Your task to perform on an android device: Search for the new ikea dresser Image 0: 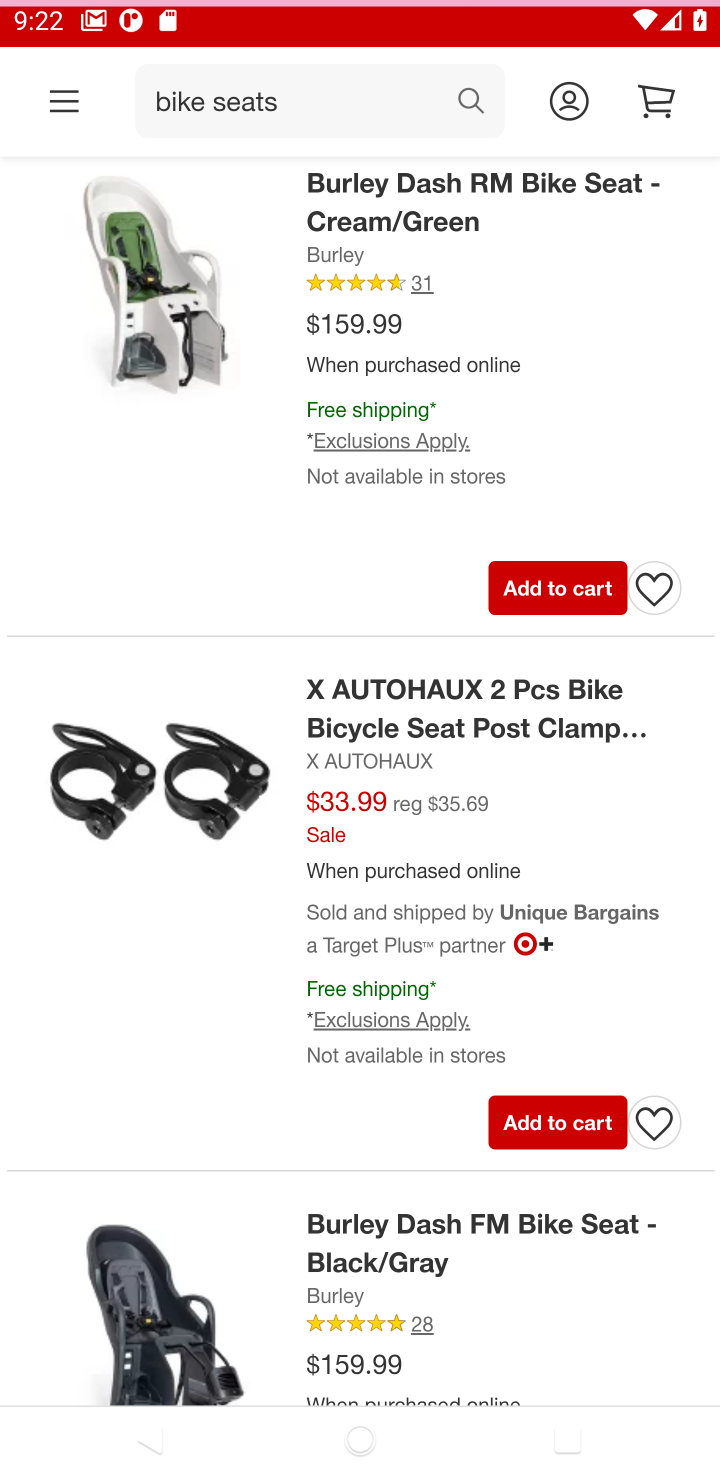
Step 0: press home button
Your task to perform on an android device: Search for the new ikea dresser Image 1: 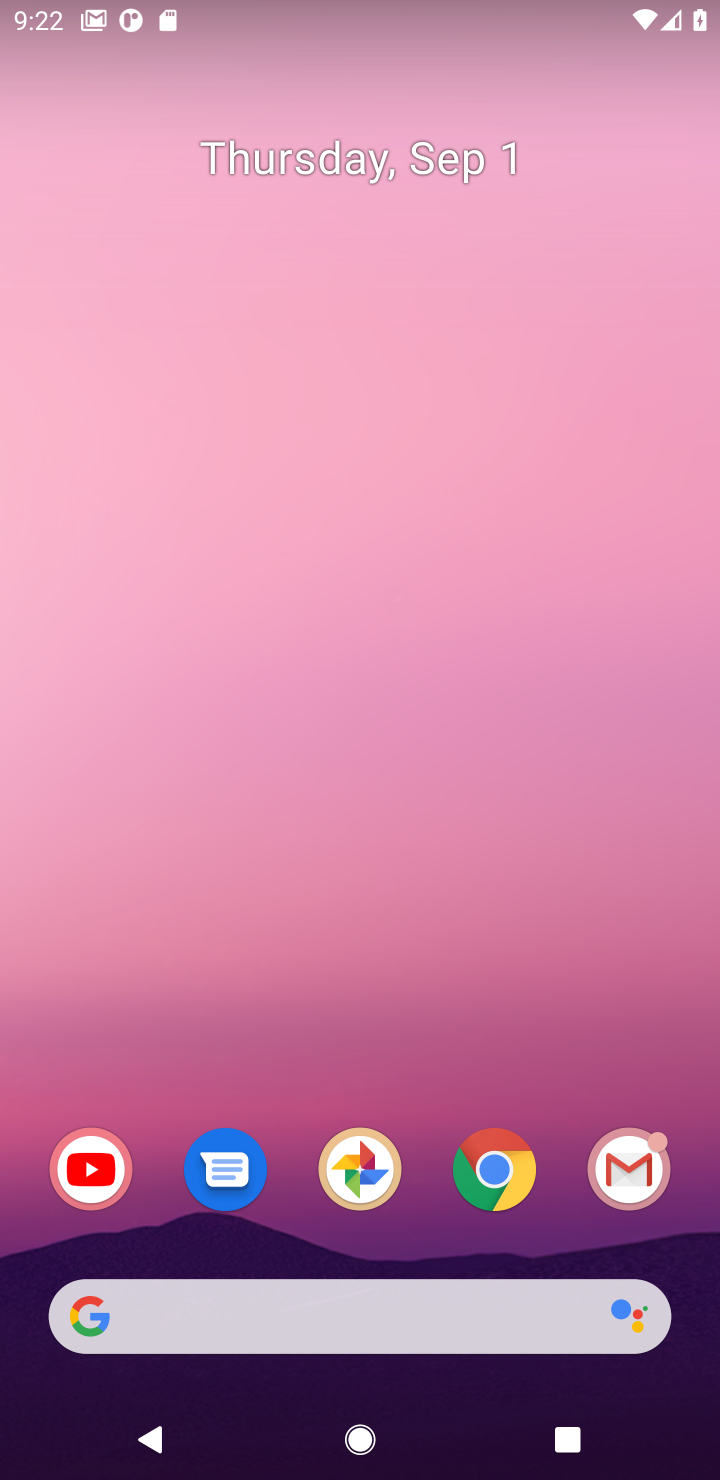
Step 1: drag from (418, 1119) to (396, 163)
Your task to perform on an android device: Search for the new ikea dresser Image 2: 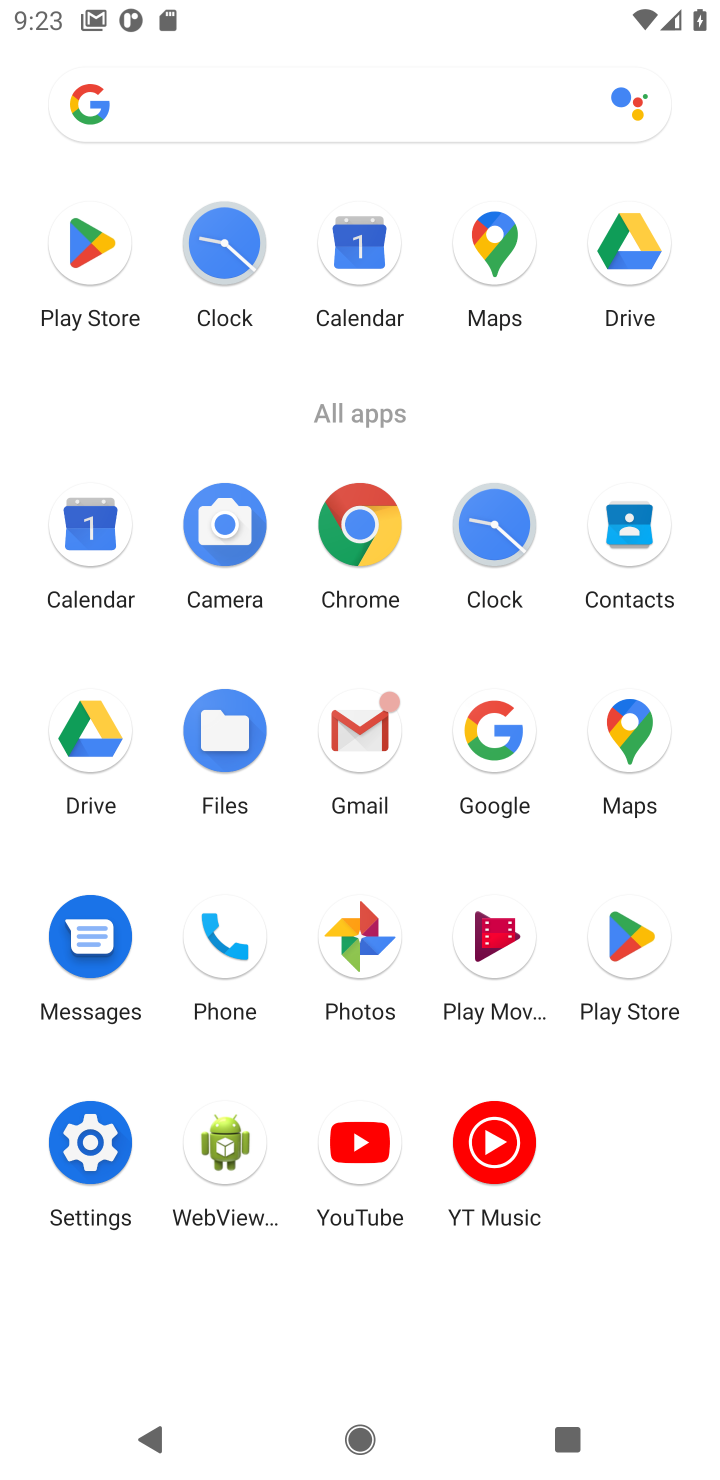
Step 2: click (343, 521)
Your task to perform on an android device: Search for the new ikea dresser Image 3: 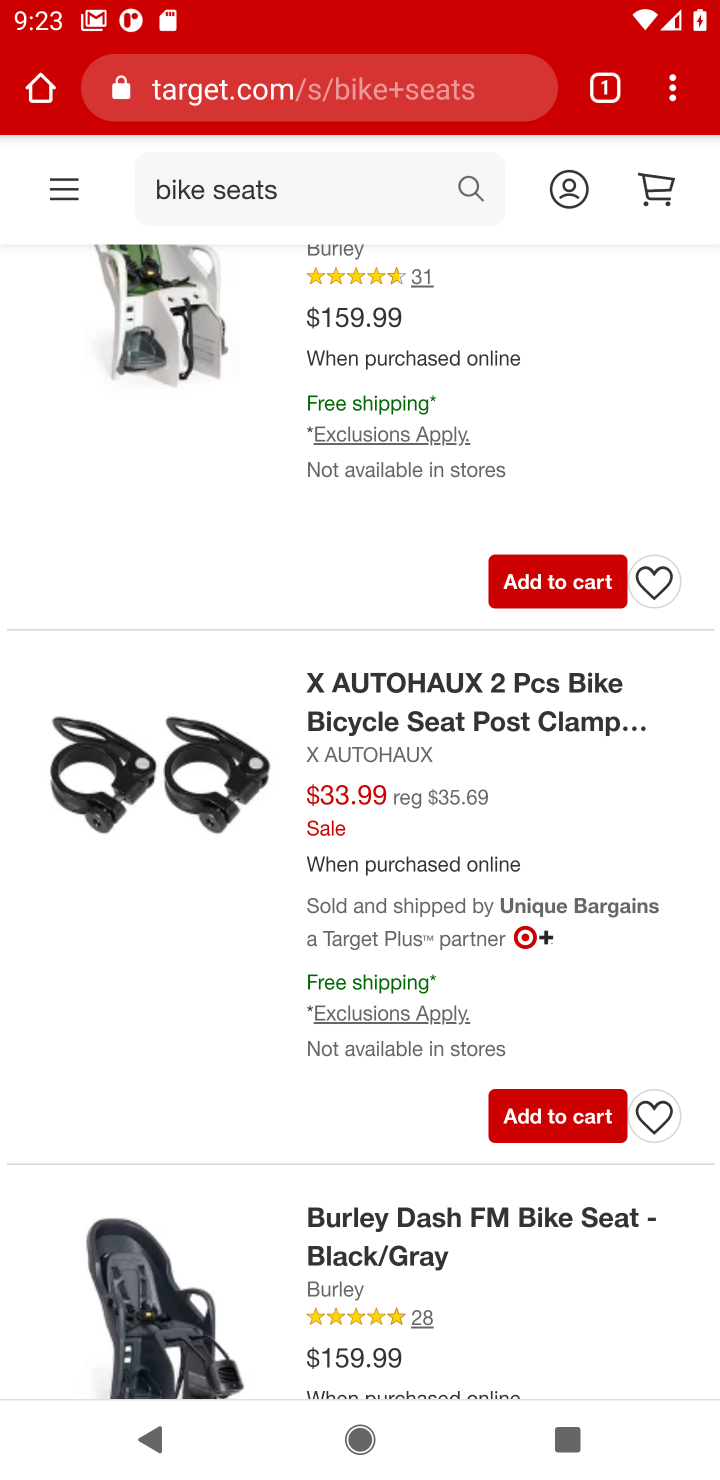
Step 3: click (600, 88)
Your task to perform on an android device: Search for the new ikea dresser Image 4: 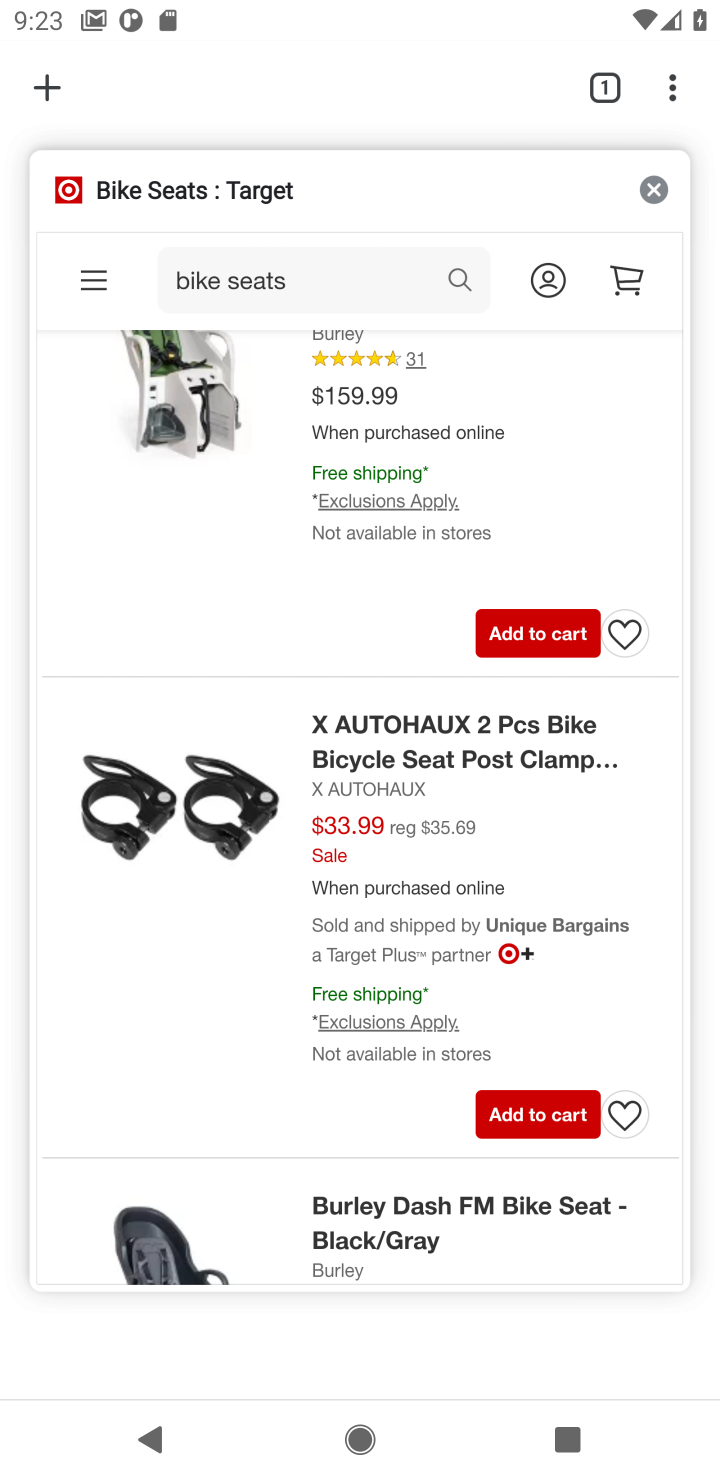
Step 4: click (41, 101)
Your task to perform on an android device: Search for the new ikea dresser Image 5: 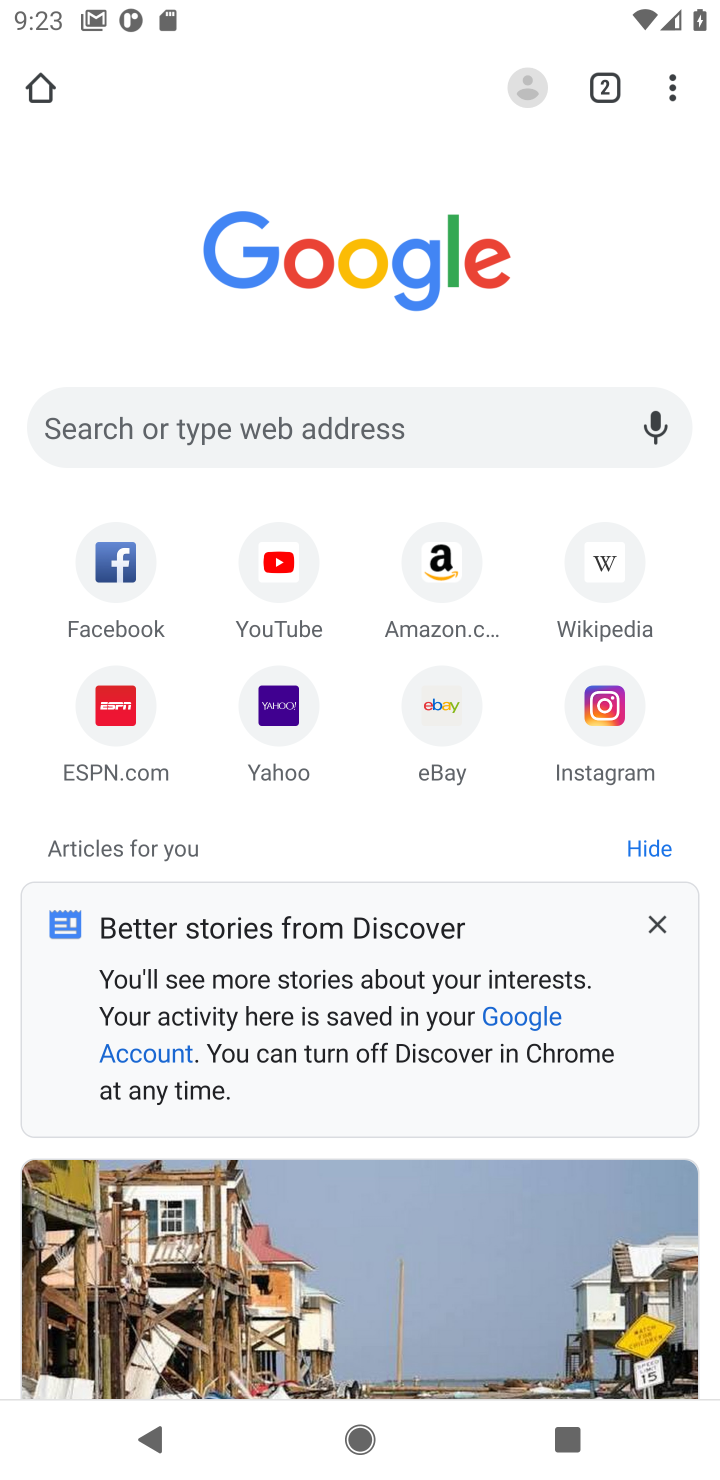
Step 5: click (249, 408)
Your task to perform on an android device: Search for the new ikea dresser Image 6: 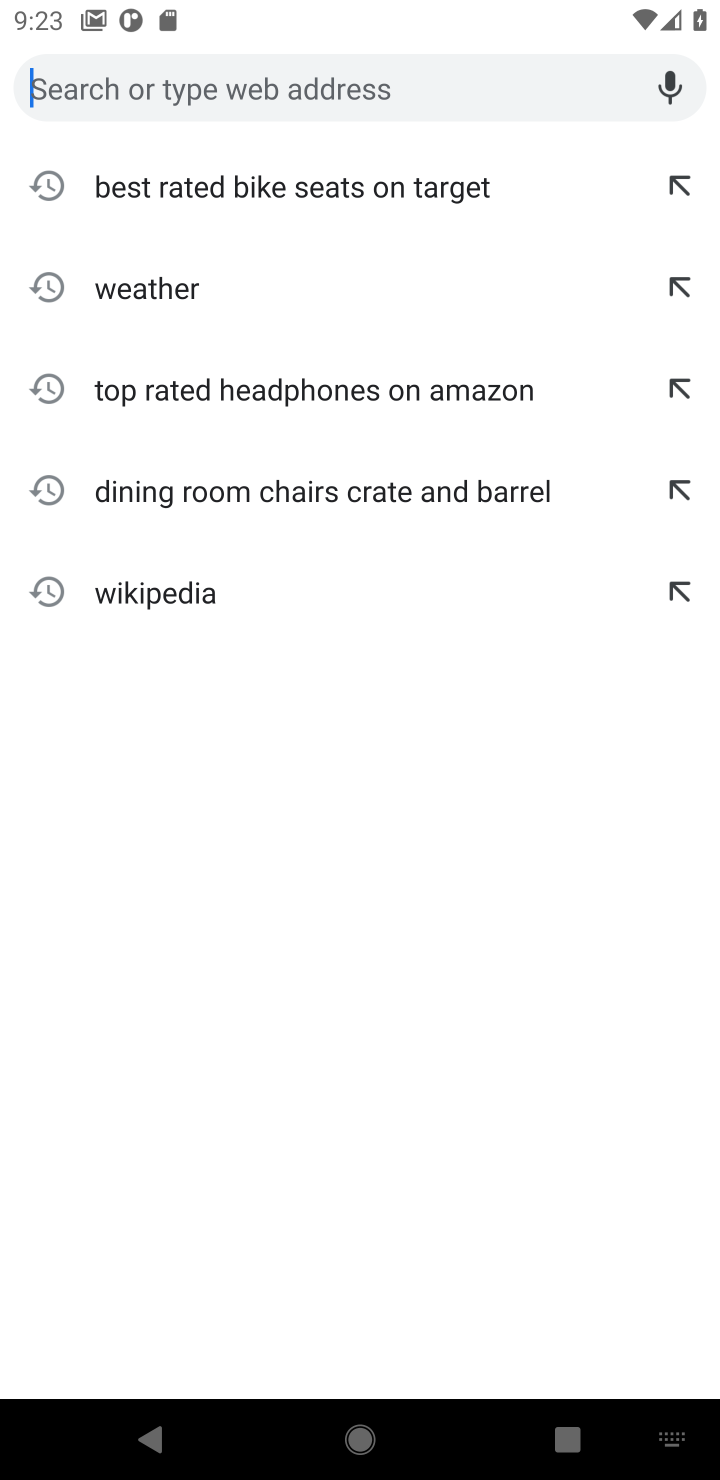
Step 6: type "the new ikea dresser"
Your task to perform on an android device: Search for the new ikea dresser Image 7: 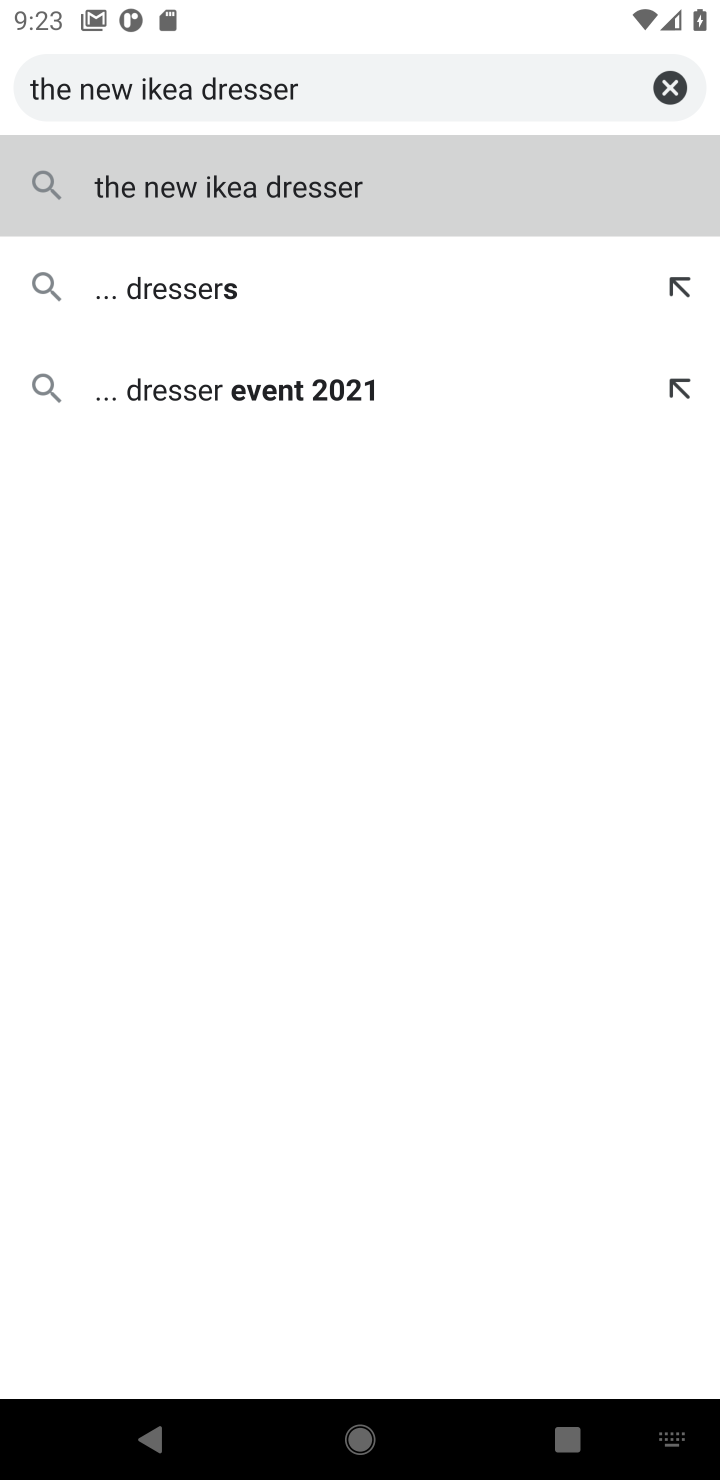
Step 7: click (360, 201)
Your task to perform on an android device: Search for the new ikea dresser Image 8: 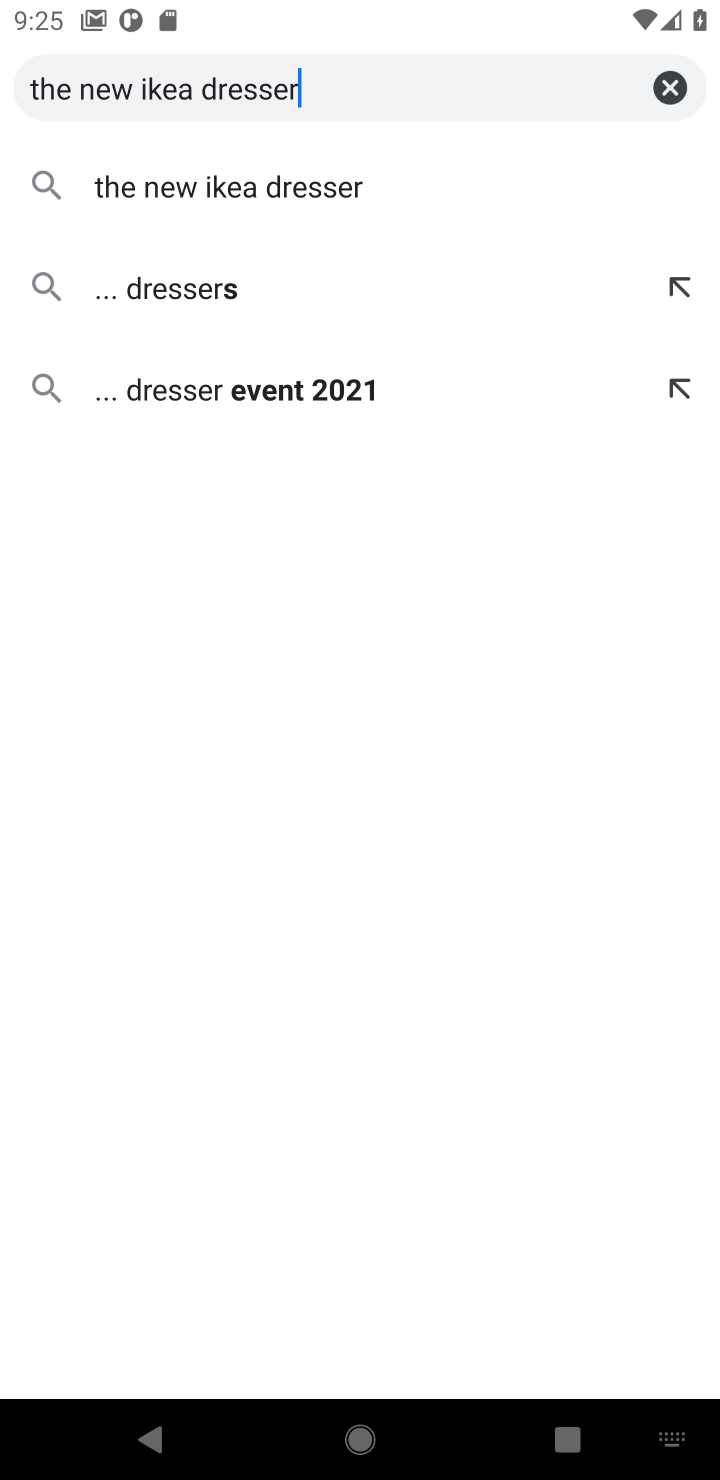
Step 8: click (305, 175)
Your task to perform on an android device: Search for the new ikea dresser Image 9: 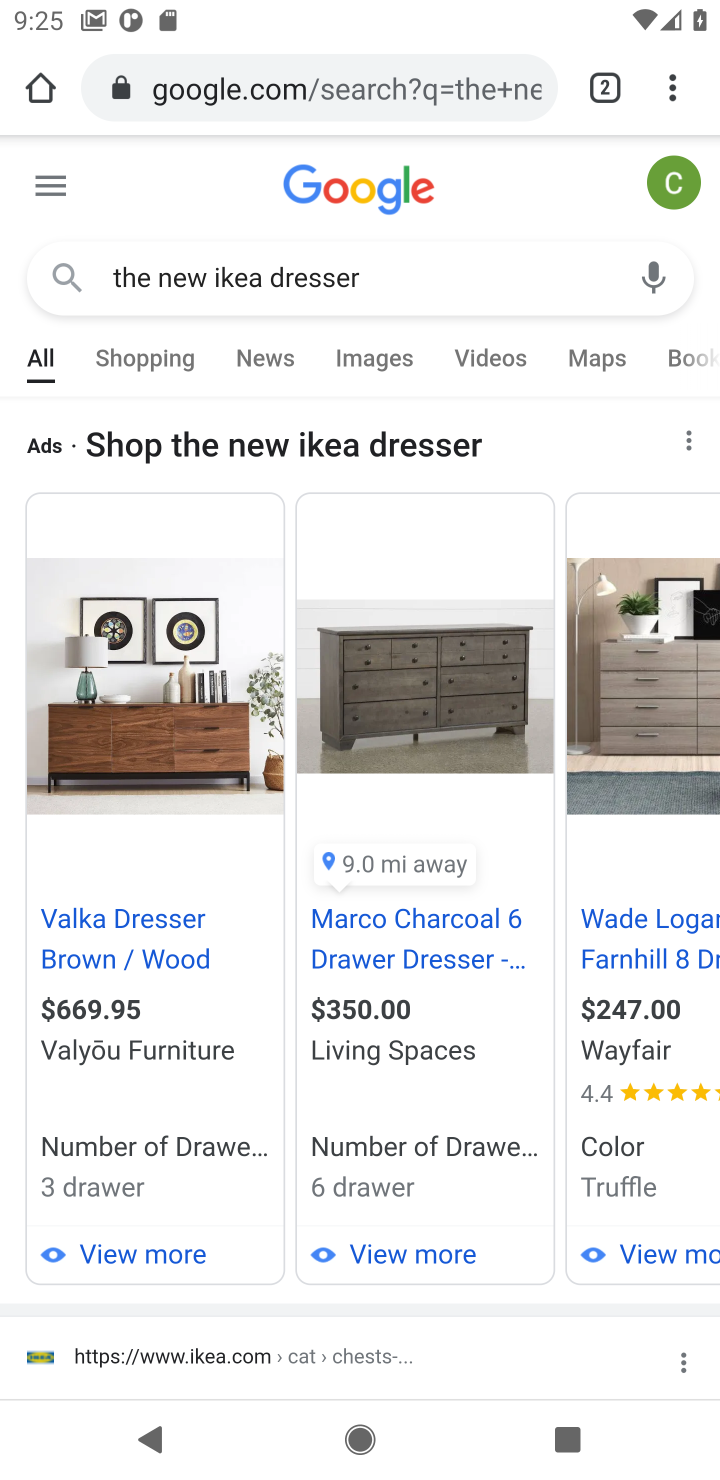
Step 9: drag from (289, 1299) to (311, 527)
Your task to perform on an android device: Search for the new ikea dresser Image 10: 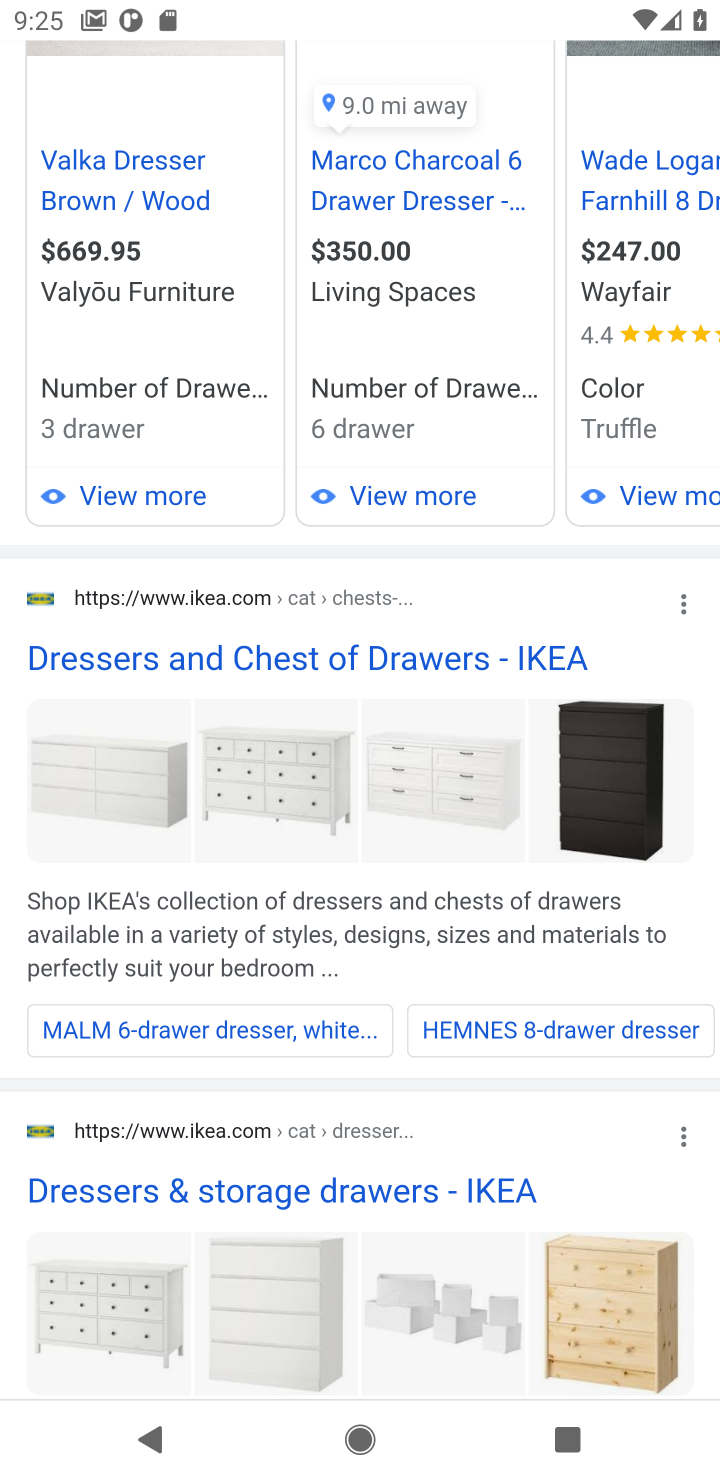
Step 10: click (321, 665)
Your task to perform on an android device: Search for the new ikea dresser Image 11: 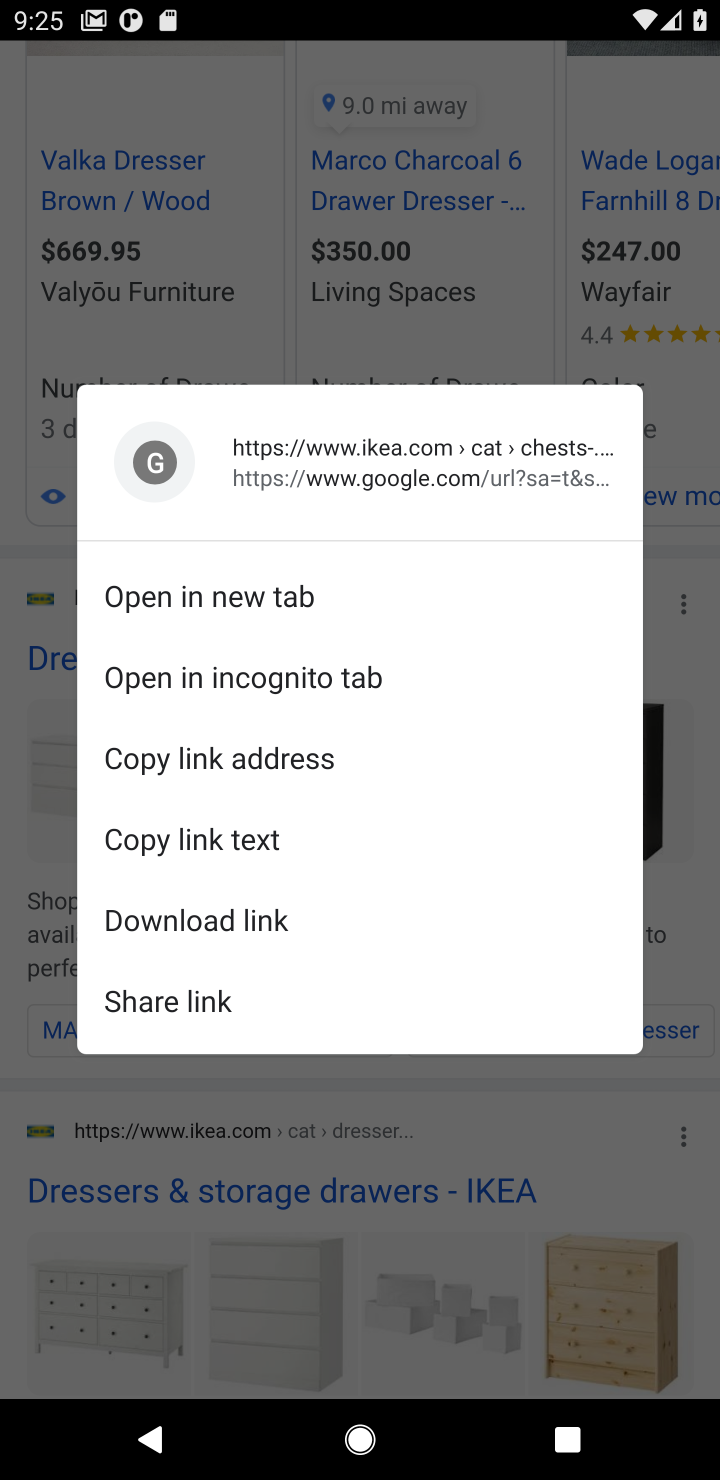
Step 11: click (16, 850)
Your task to perform on an android device: Search for the new ikea dresser Image 12: 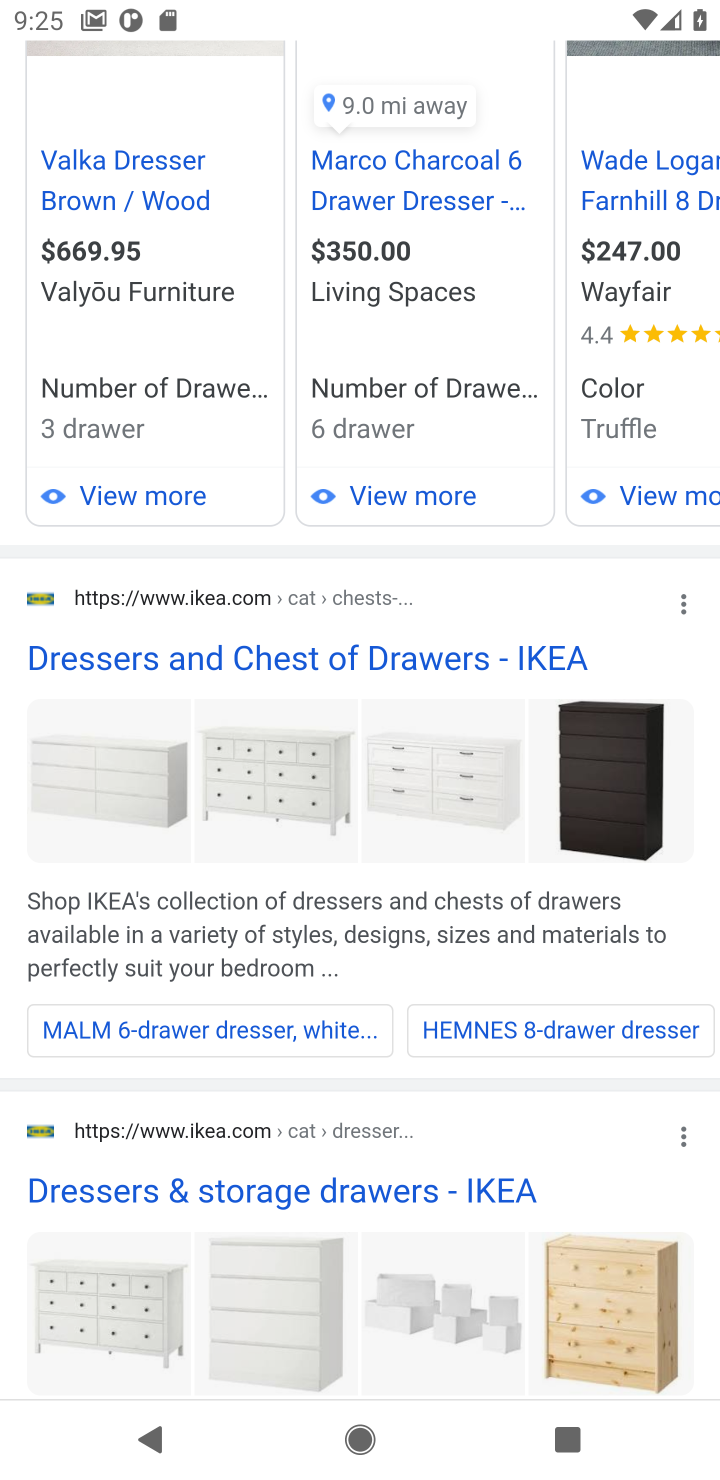
Step 12: click (118, 661)
Your task to perform on an android device: Search for the new ikea dresser Image 13: 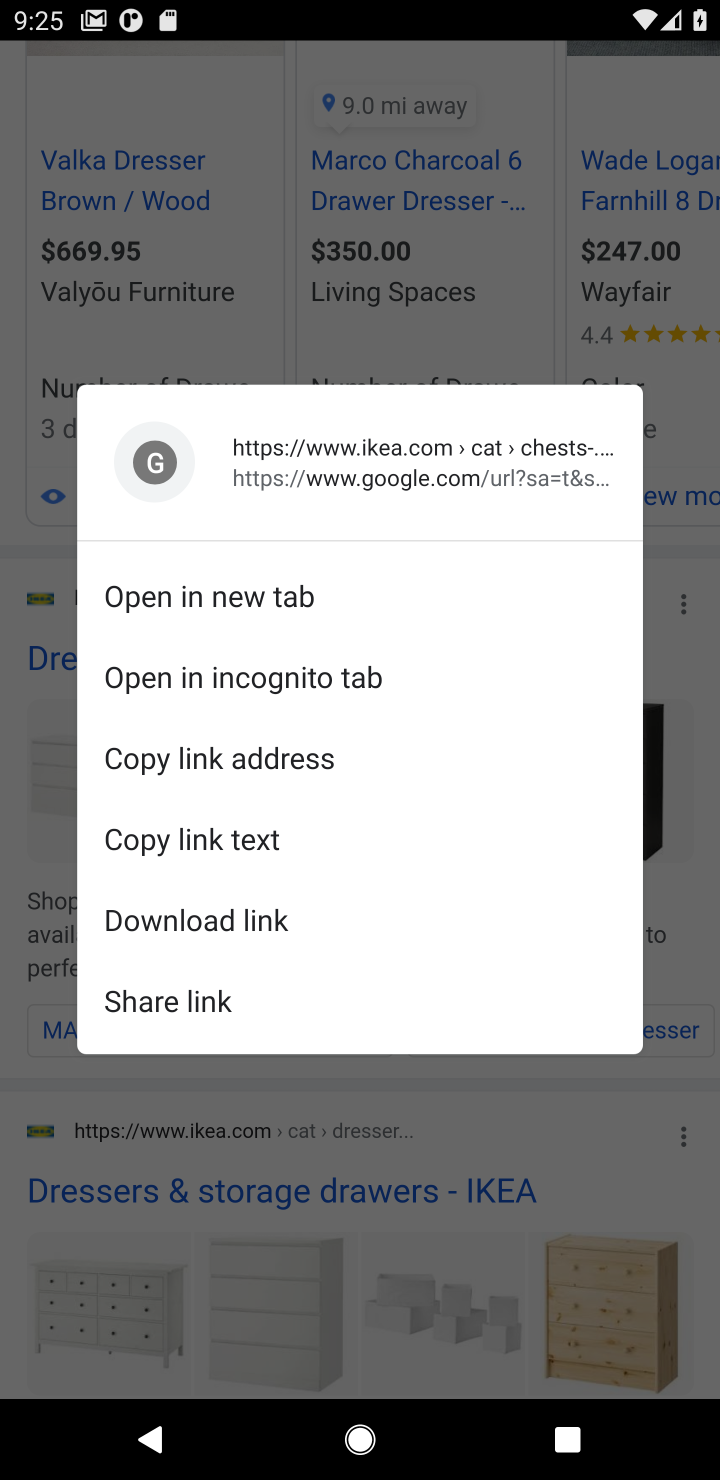
Step 13: click (16, 694)
Your task to perform on an android device: Search for the new ikea dresser Image 14: 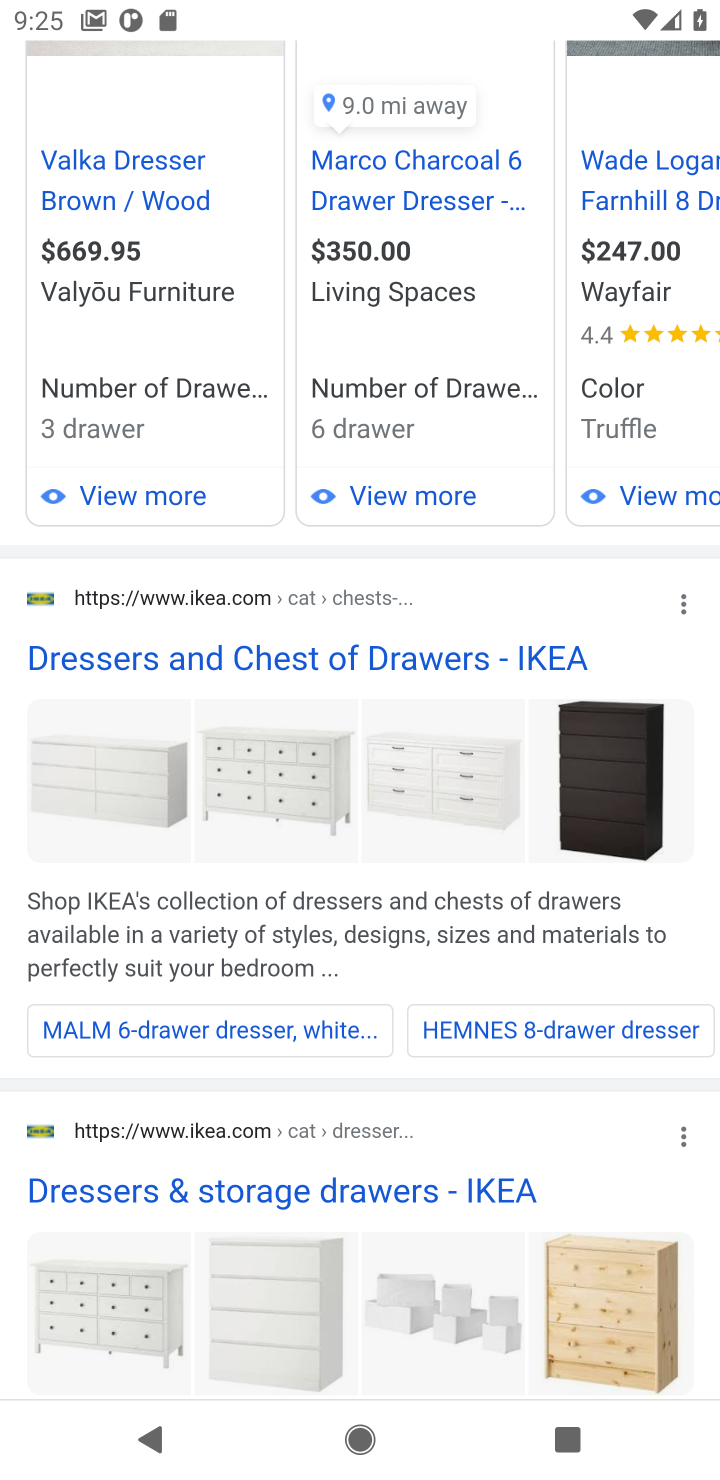
Step 14: drag from (12, 298) to (101, 1378)
Your task to perform on an android device: Search for the new ikea dresser Image 15: 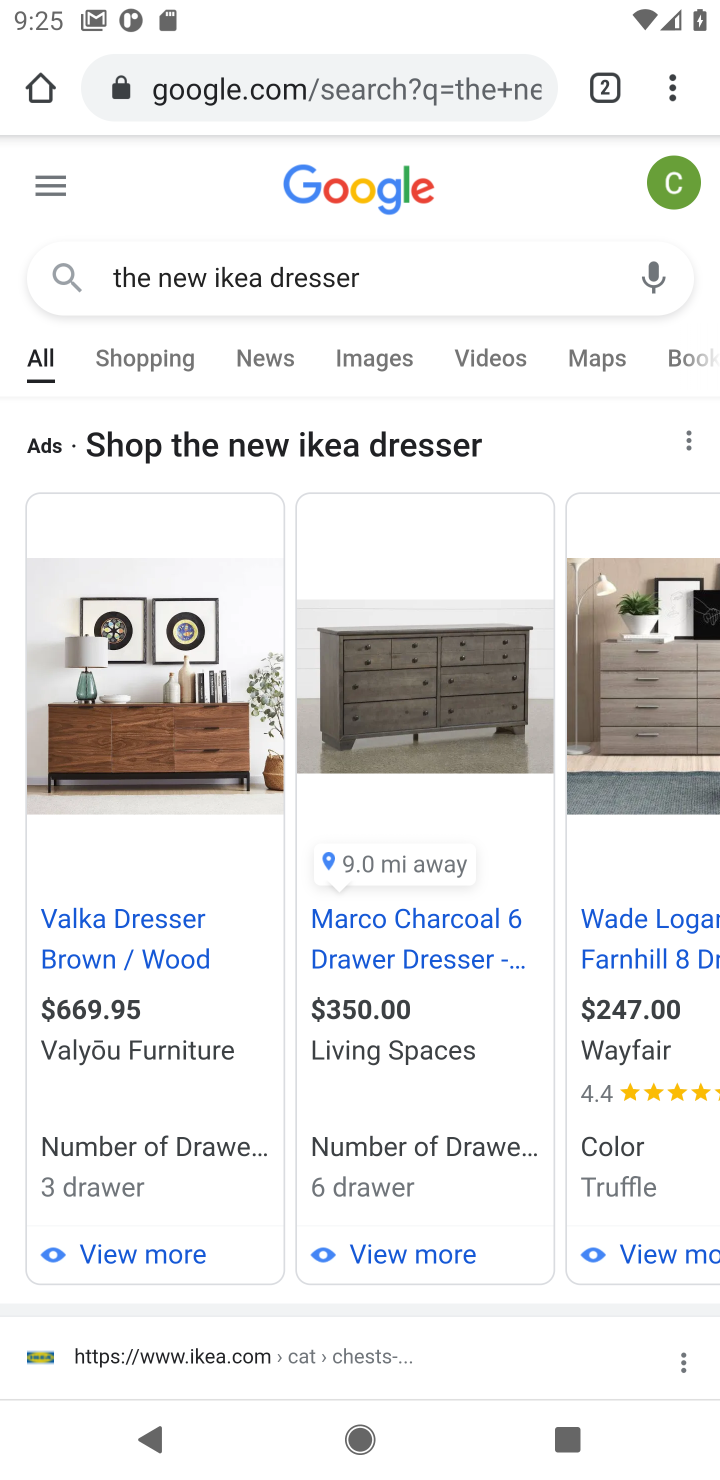
Step 15: drag from (13, 370) to (33, 909)
Your task to perform on an android device: Search for the new ikea dresser Image 16: 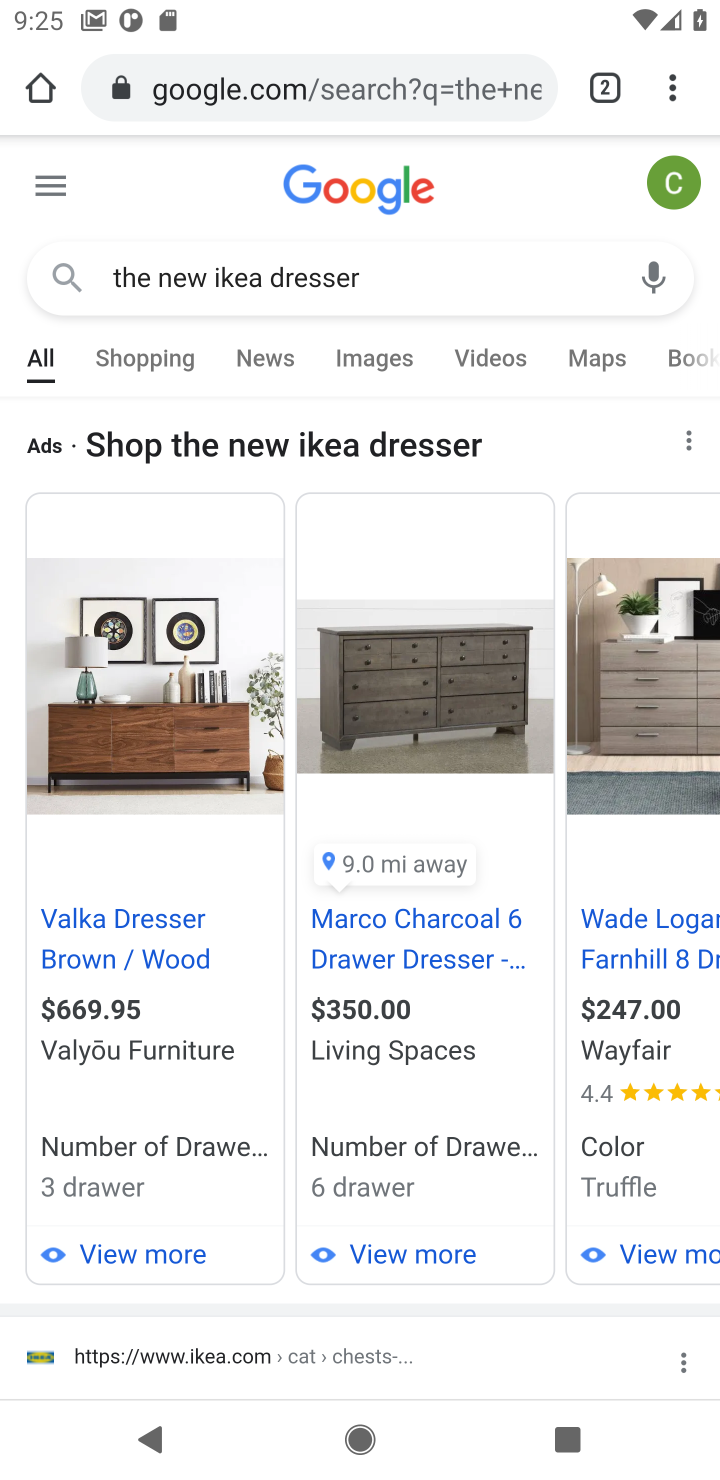
Step 16: drag from (296, 1300) to (287, 592)
Your task to perform on an android device: Search for the new ikea dresser Image 17: 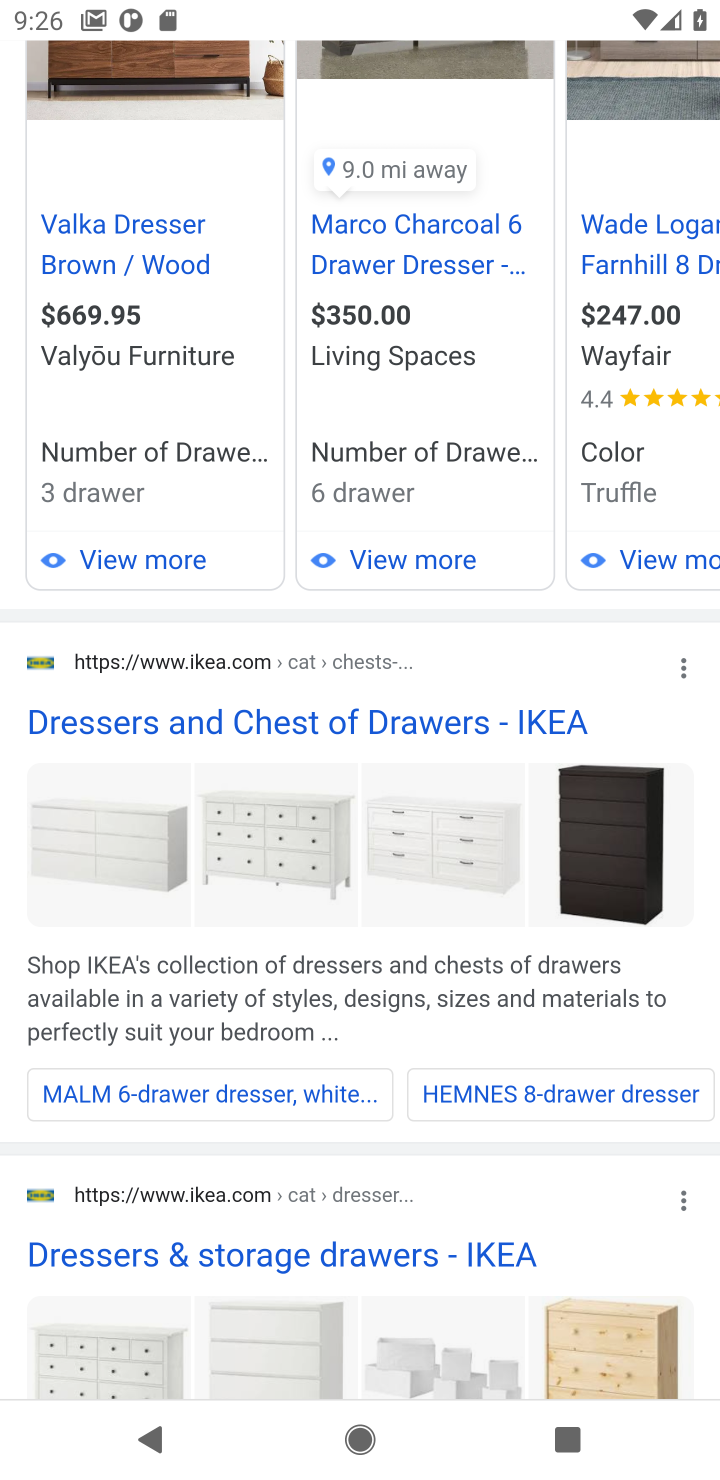
Step 17: click (308, 733)
Your task to perform on an android device: Search for the new ikea dresser Image 18: 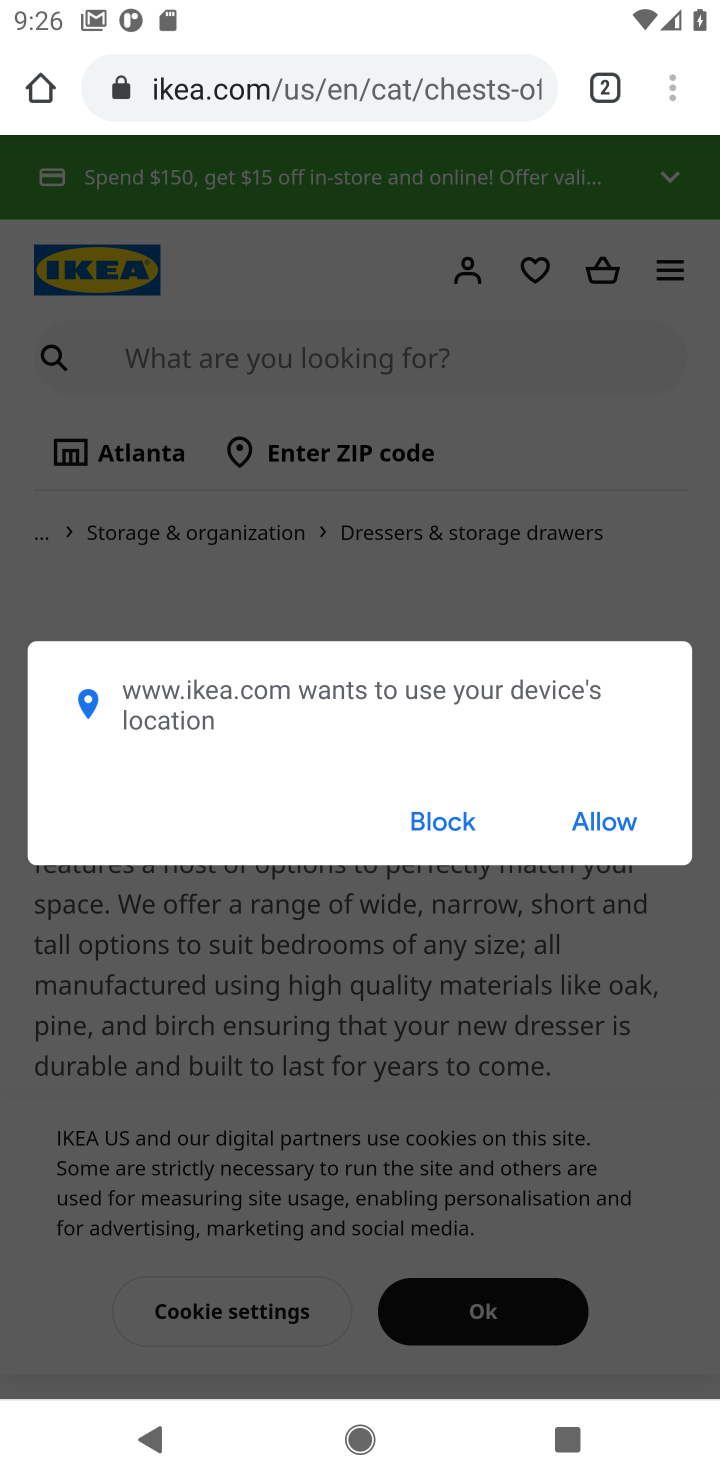
Step 18: click (461, 831)
Your task to perform on an android device: Search for the new ikea dresser Image 19: 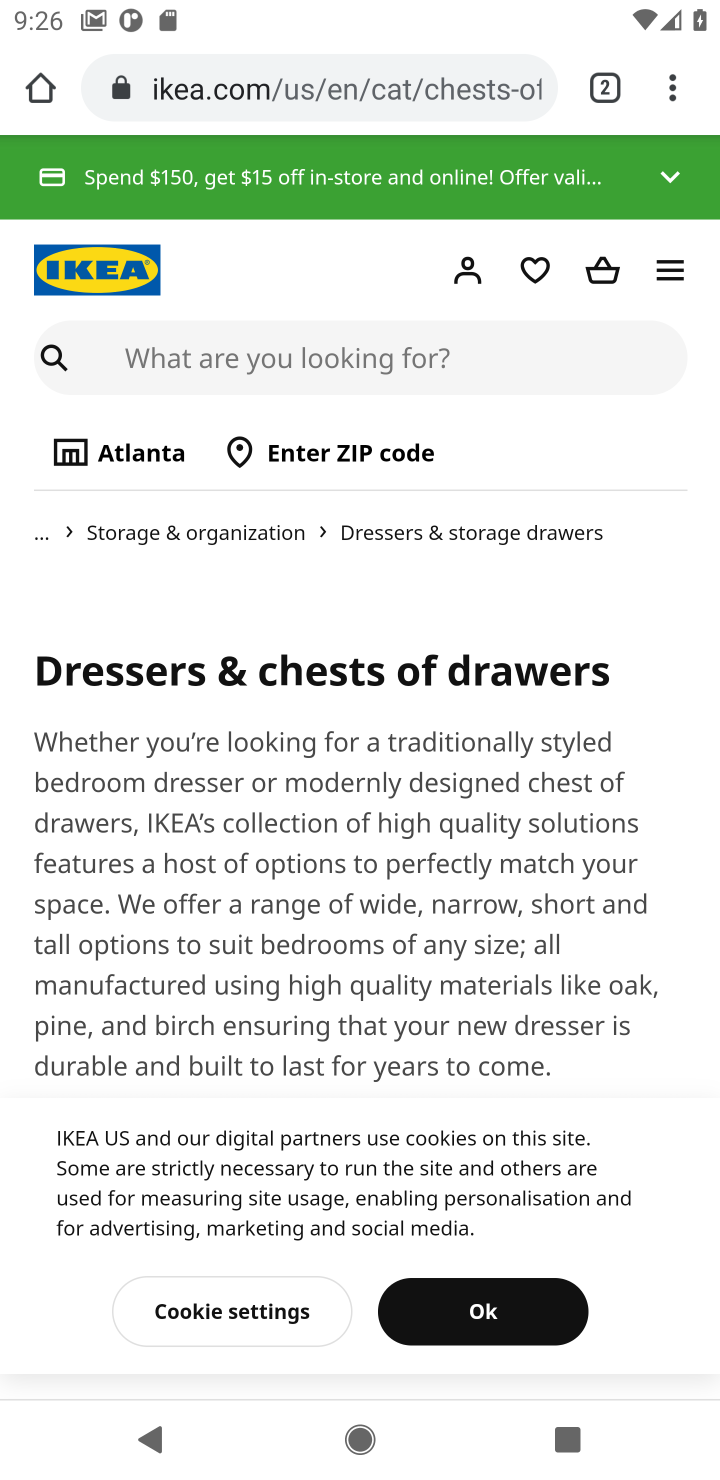
Step 19: click (492, 1306)
Your task to perform on an android device: Search for the new ikea dresser Image 20: 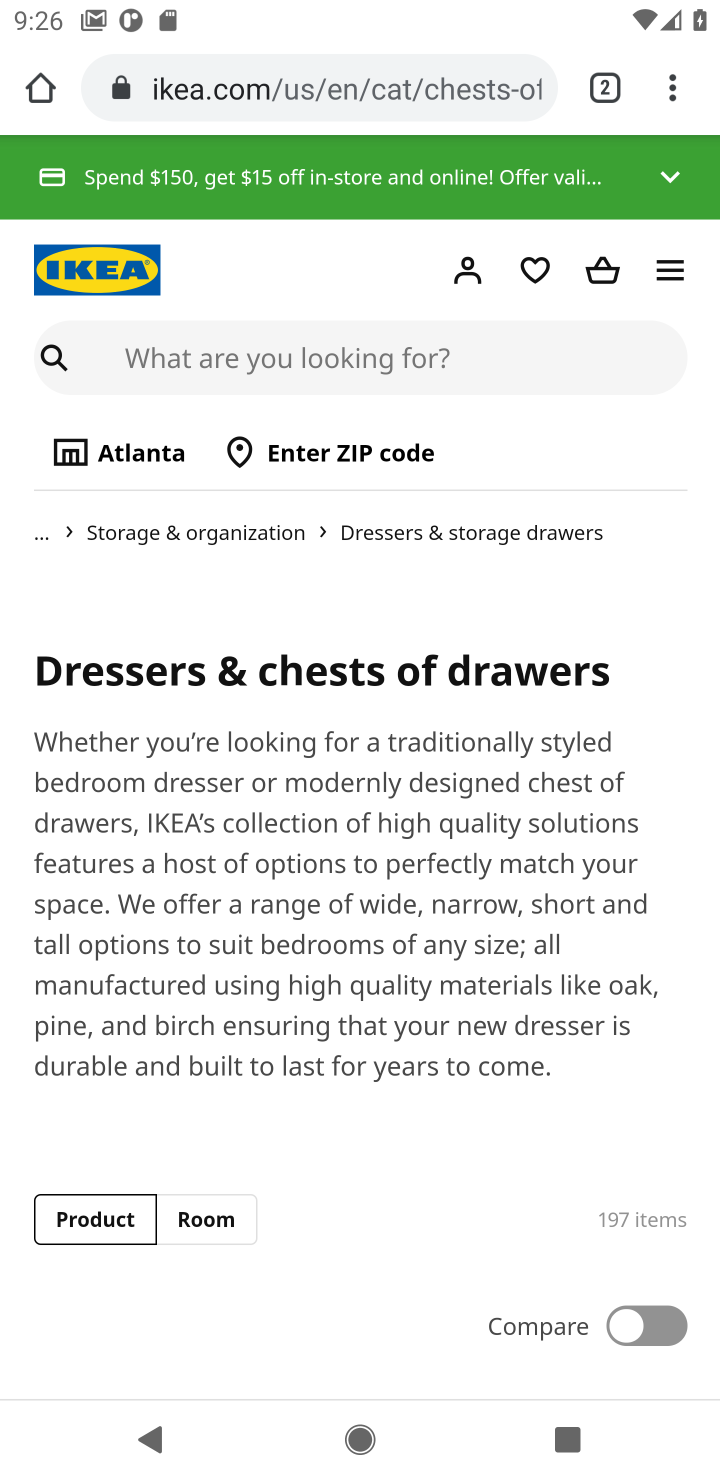
Step 20: task complete